Your task to perform on an android device: turn off priority inbox in the gmail app Image 0: 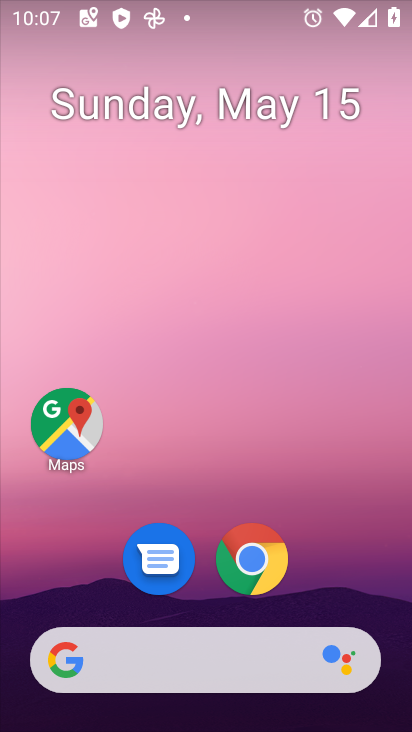
Step 0: drag from (366, 571) to (331, 192)
Your task to perform on an android device: turn off priority inbox in the gmail app Image 1: 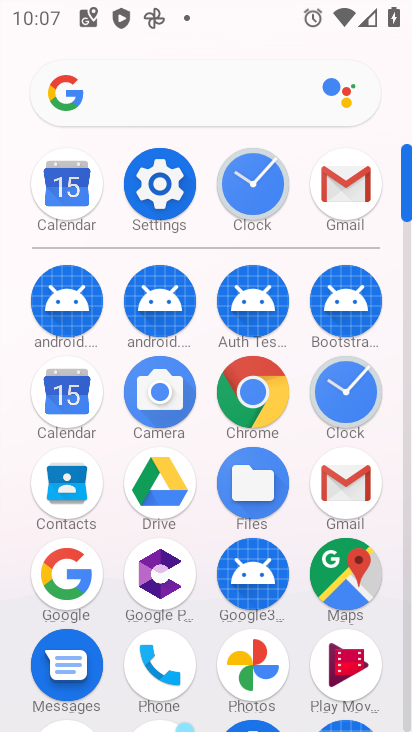
Step 1: click (343, 212)
Your task to perform on an android device: turn off priority inbox in the gmail app Image 2: 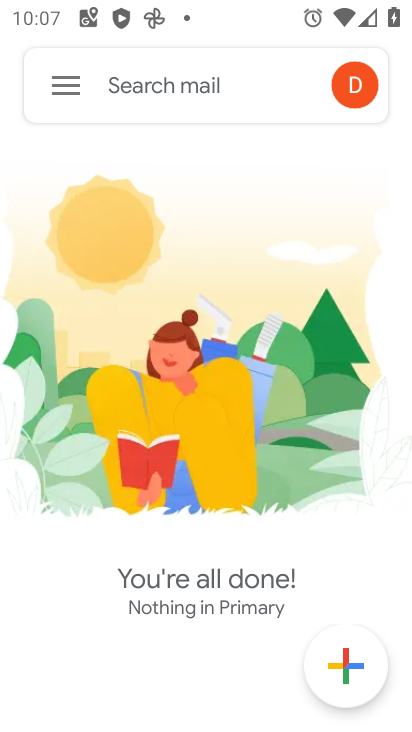
Step 2: click (70, 115)
Your task to perform on an android device: turn off priority inbox in the gmail app Image 3: 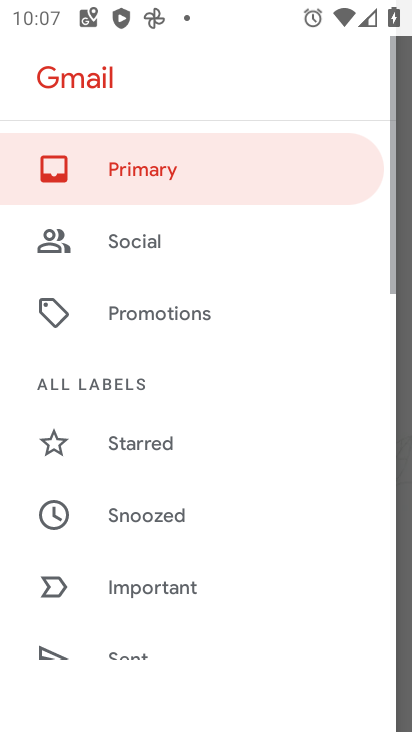
Step 3: drag from (147, 607) to (164, 296)
Your task to perform on an android device: turn off priority inbox in the gmail app Image 4: 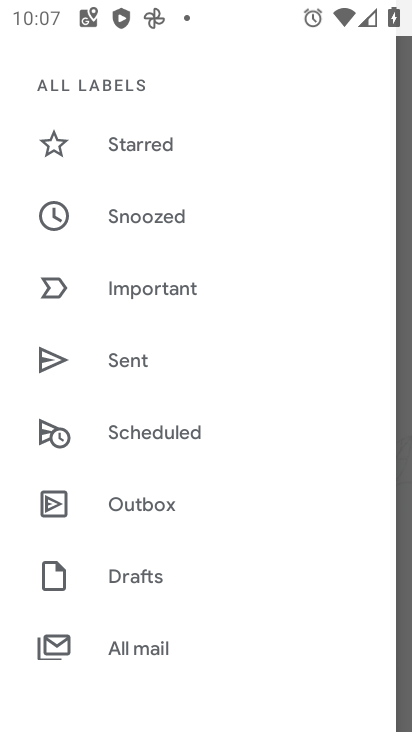
Step 4: drag from (218, 615) to (238, 297)
Your task to perform on an android device: turn off priority inbox in the gmail app Image 5: 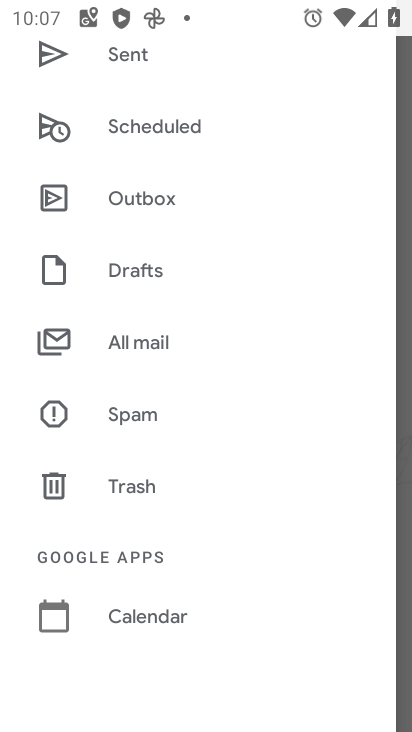
Step 5: drag from (229, 619) to (259, 318)
Your task to perform on an android device: turn off priority inbox in the gmail app Image 6: 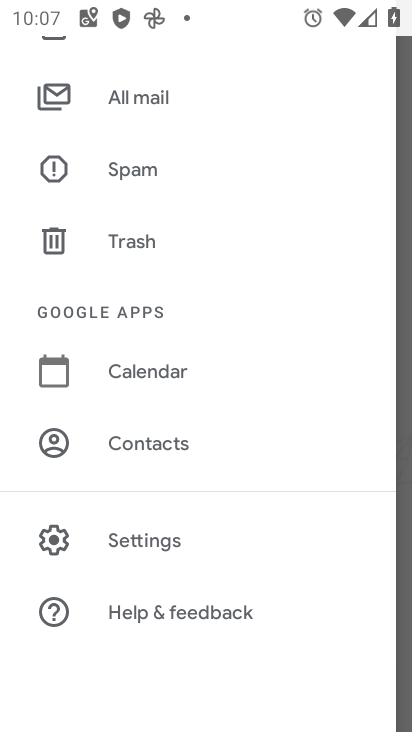
Step 6: click (209, 525)
Your task to perform on an android device: turn off priority inbox in the gmail app Image 7: 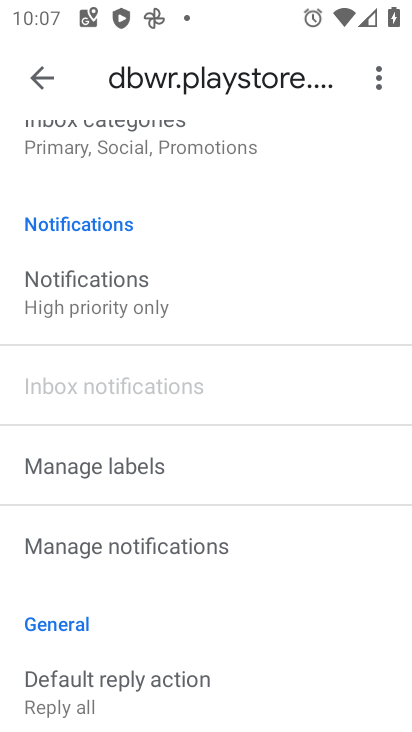
Step 7: drag from (271, 257) to (218, 573)
Your task to perform on an android device: turn off priority inbox in the gmail app Image 8: 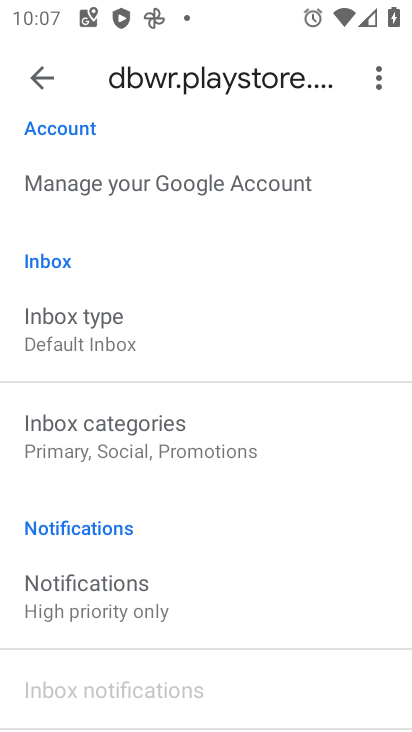
Step 8: click (213, 333)
Your task to perform on an android device: turn off priority inbox in the gmail app Image 9: 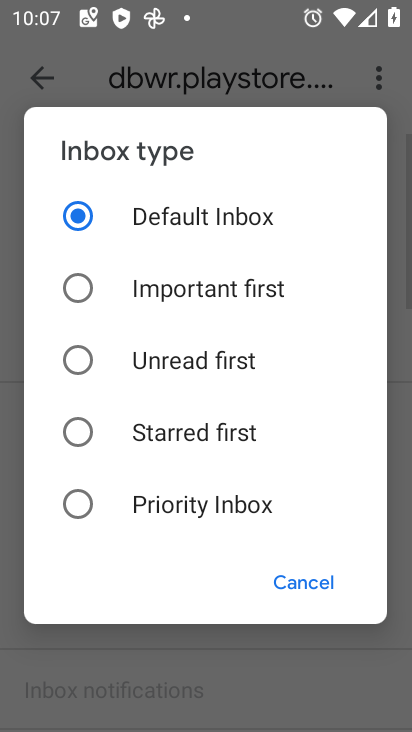
Step 9: click (179, 484)
Your task to perform on an android device: turn off priority inbox in the gmail app Image 10: 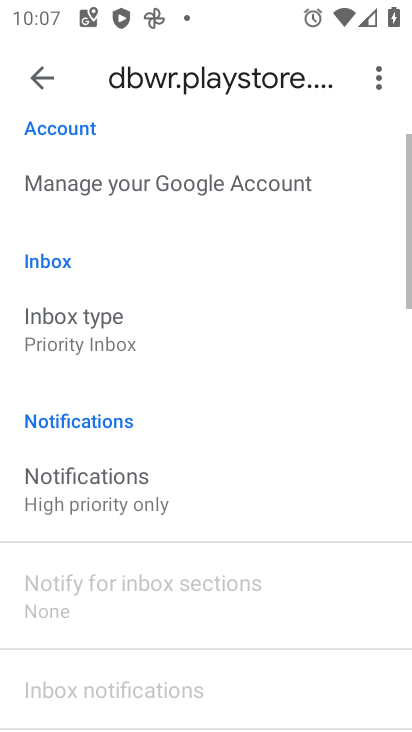
Step 10: task complete